Your task to perform on an android device: uninstall "Microsoft Outlook" Image 0: 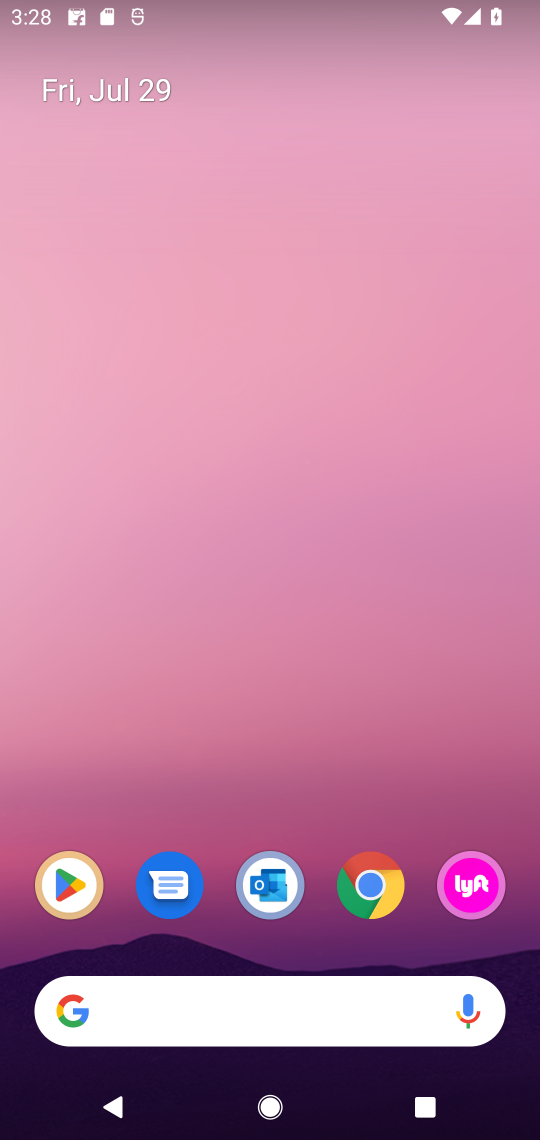
Step 0: click (74, 891)
Your task to perform on an android device: uninstall "Microsoft Outlook" Image 1: 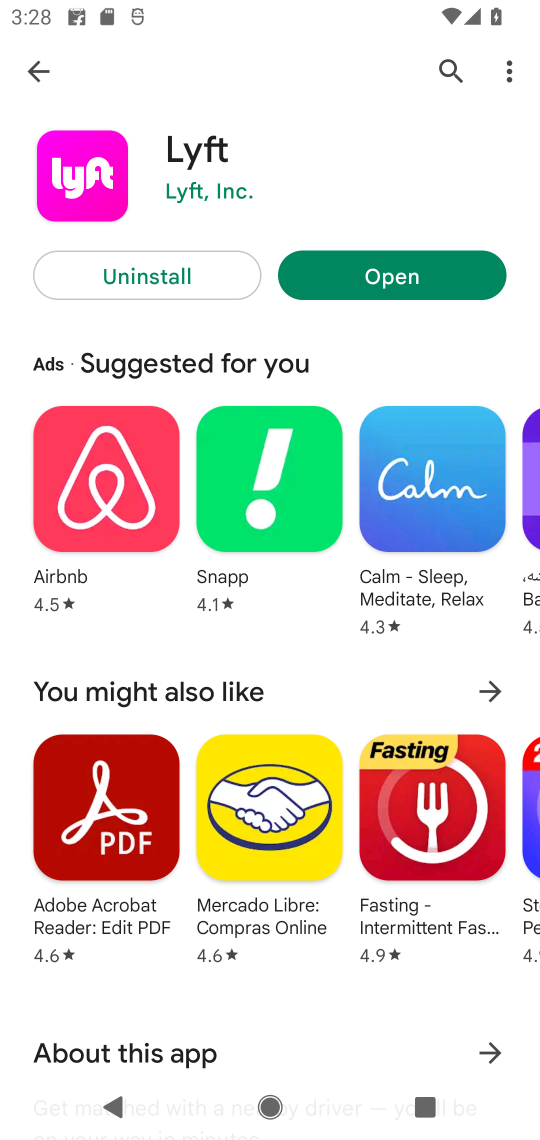
Step 1: click (443, 63)
Your task to perform on an android device: uninstall "Microsoft Outlook" Image 2: 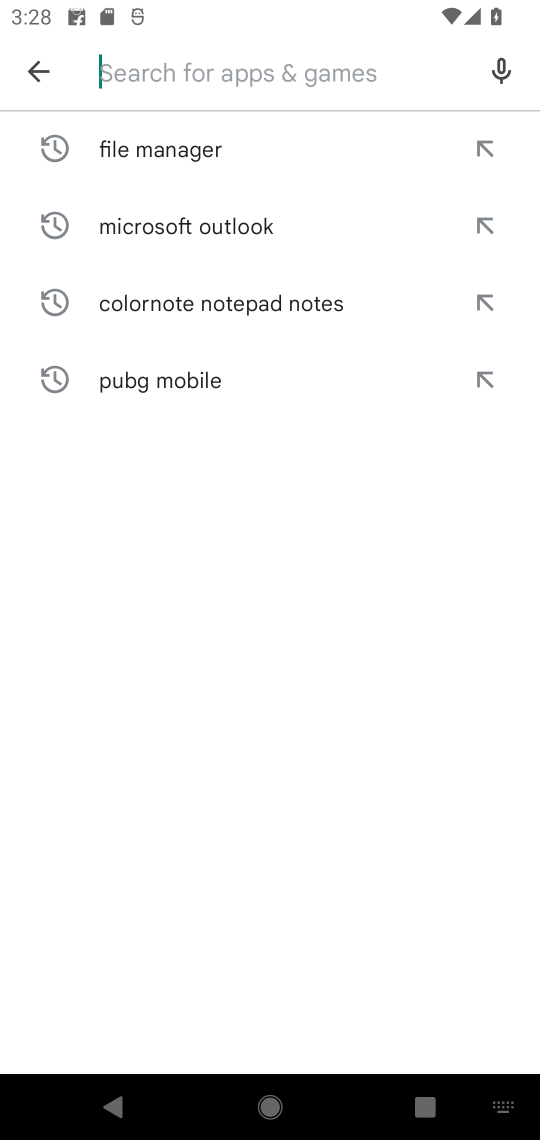
Step 2: click (277, 226)
Your task to perform on an android device: uninstall "Microsoft Outlook" Image 3: 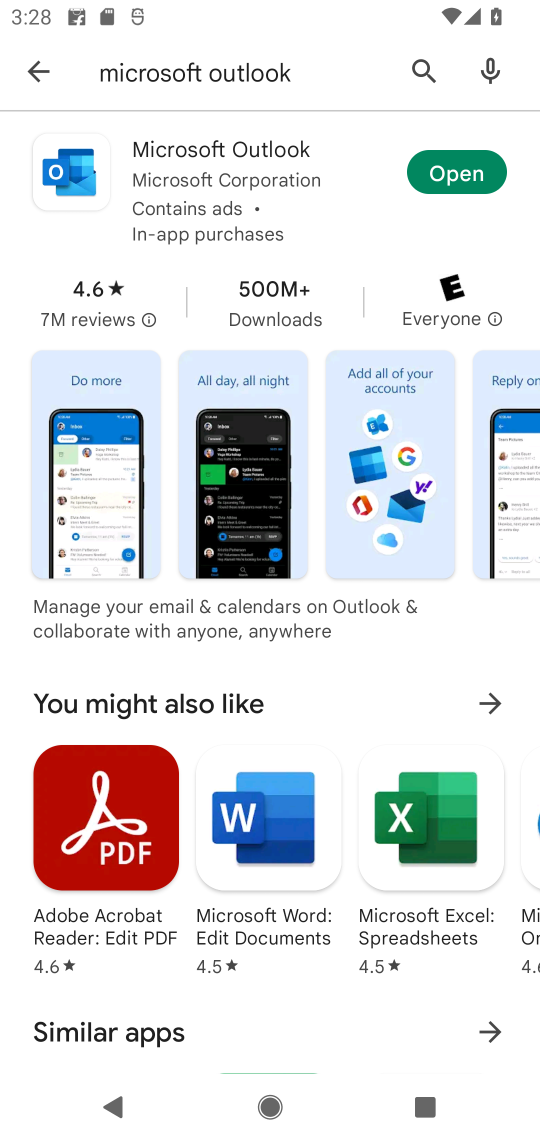
Step 3: click (249, 172)
Your task to perform on an android device: uninstall "Microsoft Outlook" Image 4: 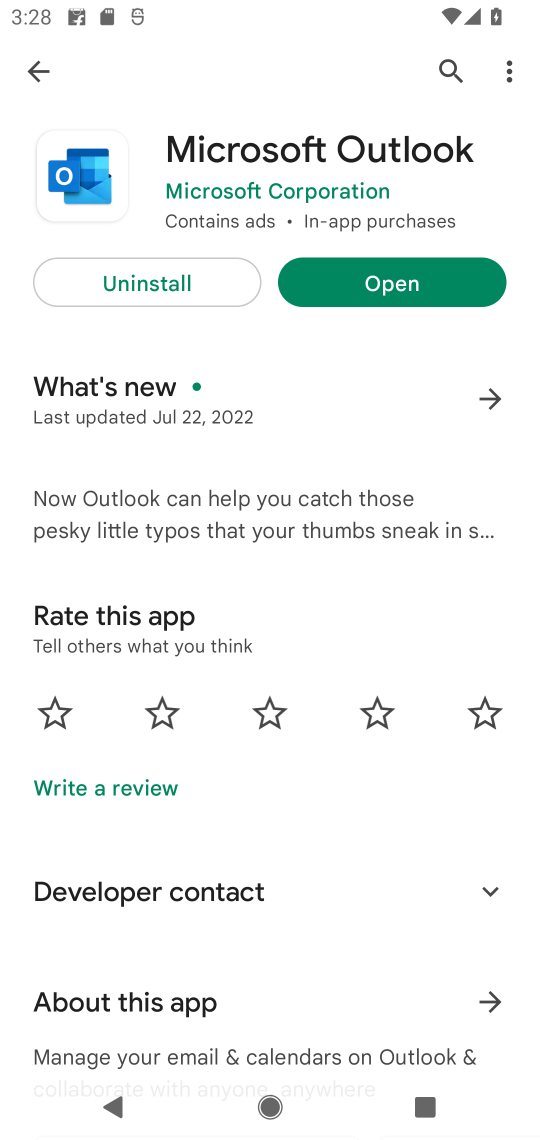
Step 4: click (94, 285)
Your task to perform on an android device: uninstall "Microsoft Outlook" Image 5: 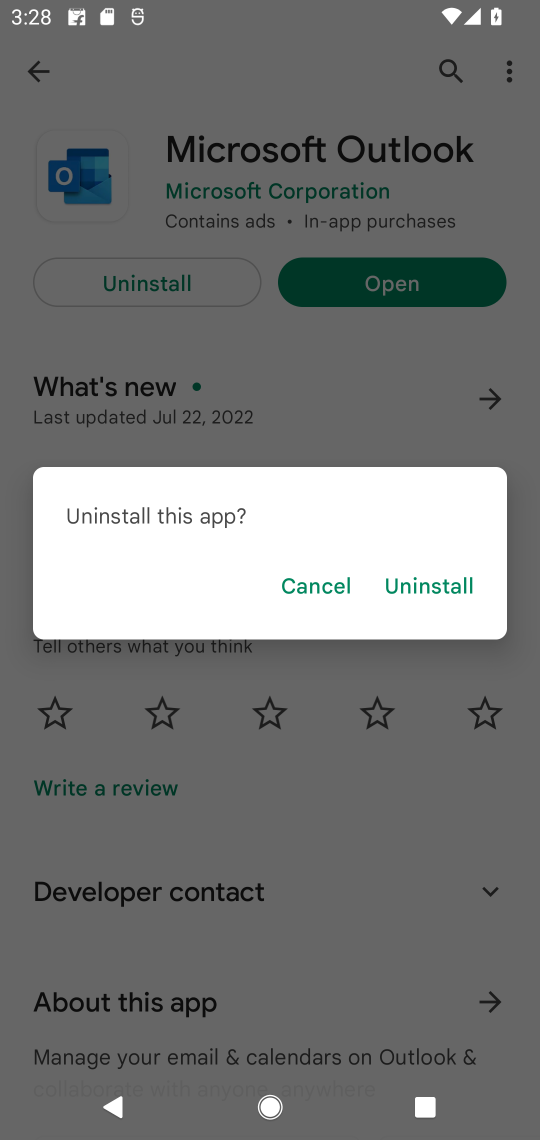
Step 5: click (418, 583)
Your task to perform on an android device: uninstall "Microsoft Outlook" Image 6: 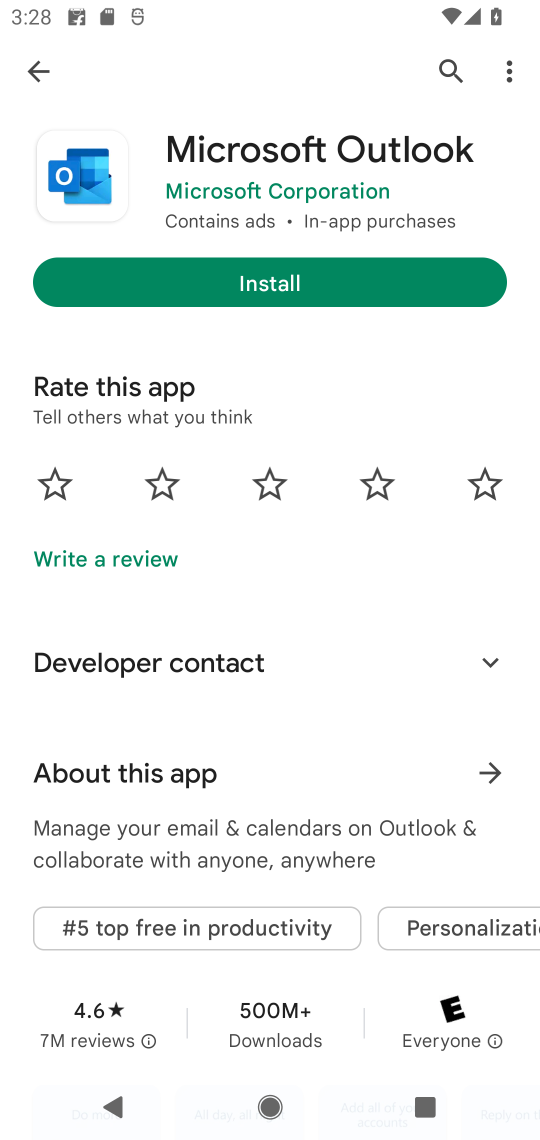
Step 6: task complete